Your task to perform on an android device: Search for Mexican restaurants on Maps Image 0: 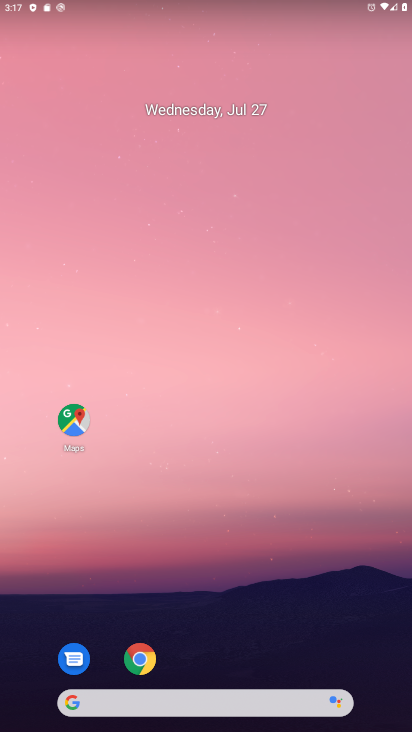
Step 0: click (66, 413)
Your task to perform on an android device: Search for Mexican restaurants on Maps Image 1: 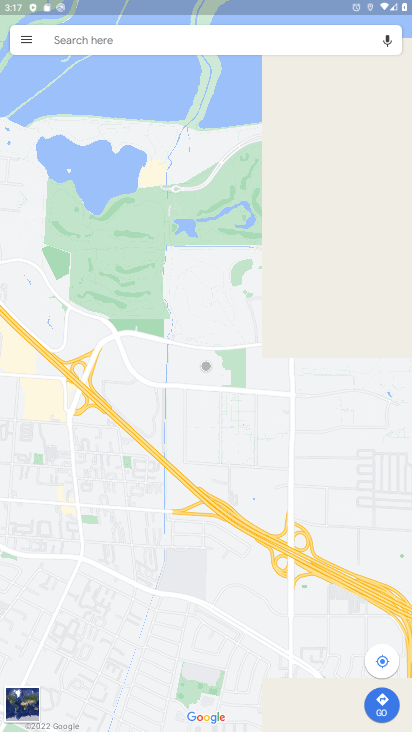
Step 1: click (141, 42)
Your task to perform on an android device: Search for Mexican restaurants on Maps Image 2: 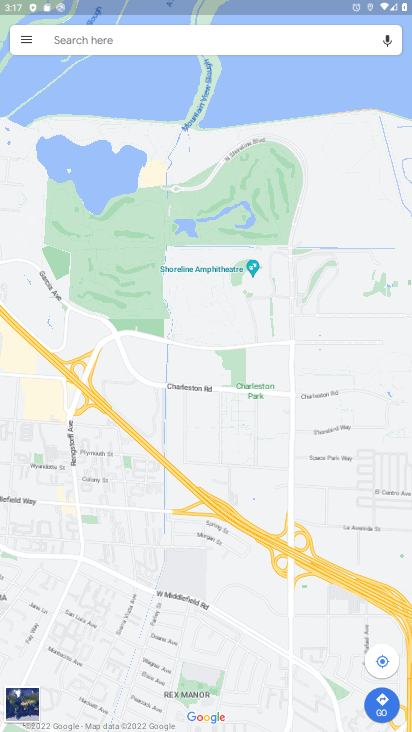
Step 2: click (141, 42)
Your task to perform on an android device: Search for Mexican restaurants on Maps Image 3: 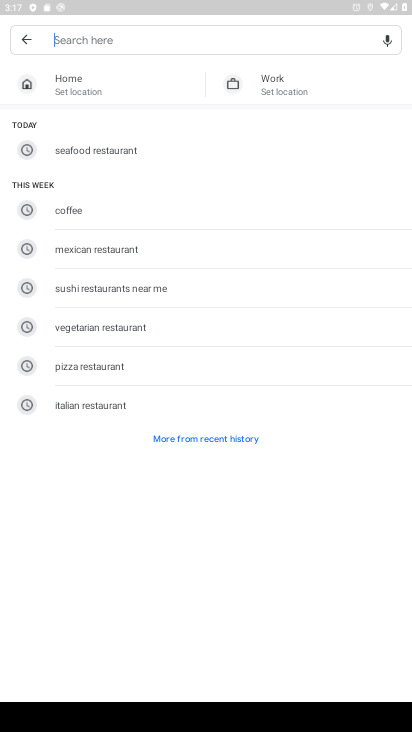
Step 3: click (133, 257)
Your task to perform on an android device: Search for Mexican restaurants on Maps Image 4: 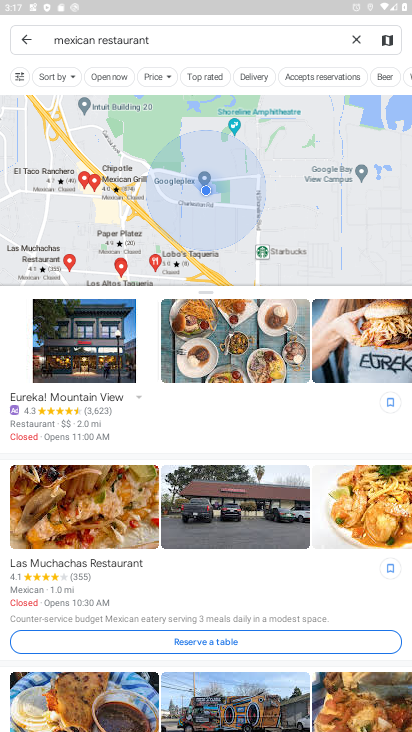
Step 4: task complete